Your task to perform on an android device: Go to wifi settings Image 0: 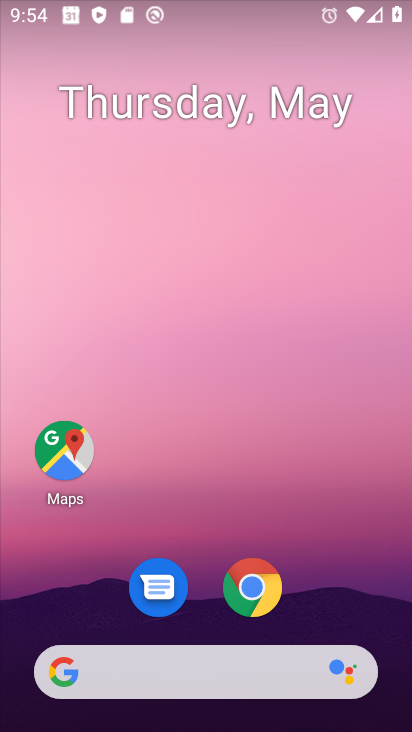
Step 0: drag from (383, 656) to (267, 2)
Your task to perform on an android device: Go to wifi settings Image 1: 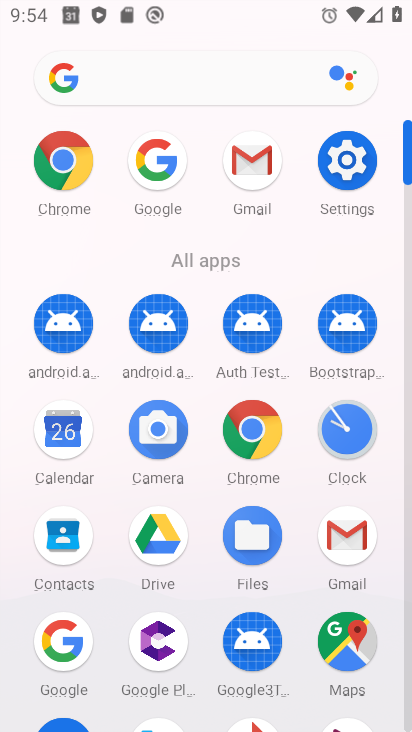
Step 1: click (361, 156)
Your task to perform on an android device: Go to wifi settings Image 2: 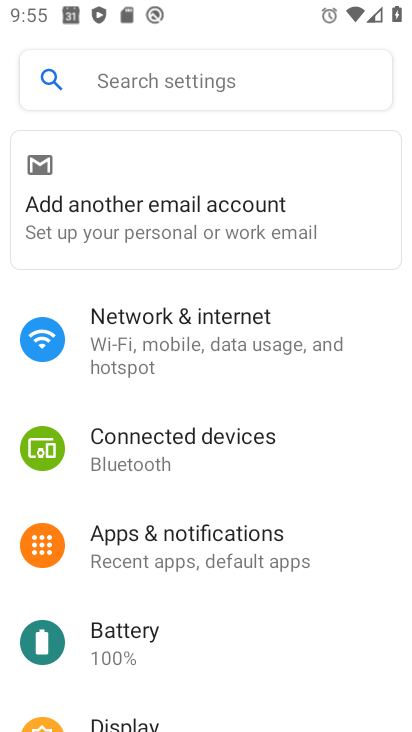
Step 2: click (224, 343)
Your task to perform on an android device: Go to wifi settings Image 3: 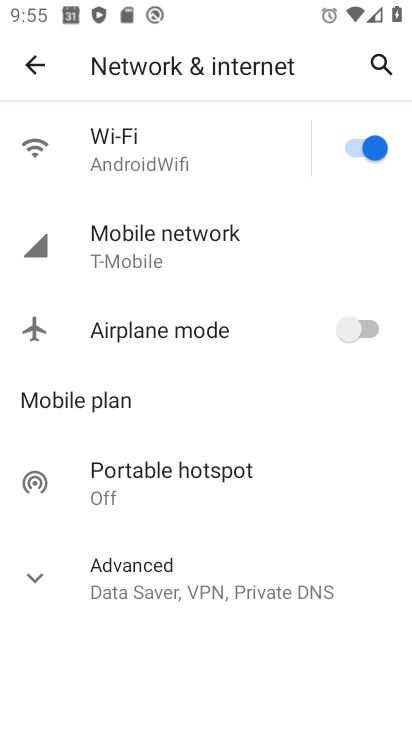
Step 3: click (135, 142)
Your task to perform on an android device: Go to wifi settings Image 4: 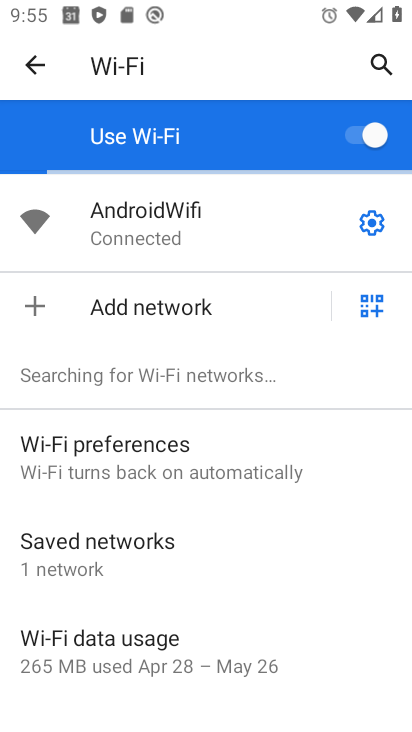
Step 4: task complete